Your task to perform on an android device: Open Google Chrome and open the bookmarks view Image 0: 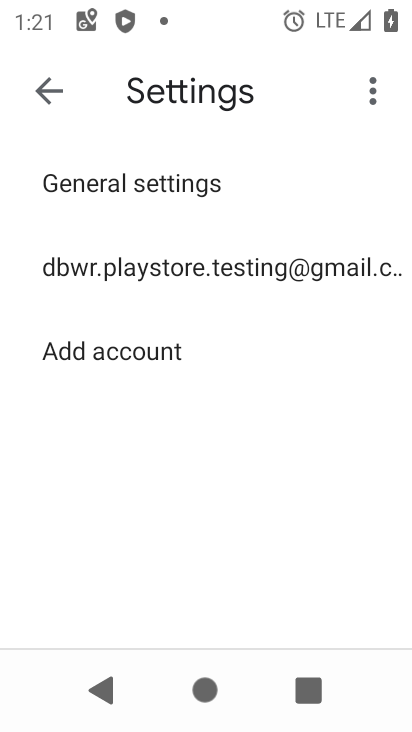
Step 0: press home button
Your task to perform on an android device: Open Google Chrome and open the bookmarks view Image 1: 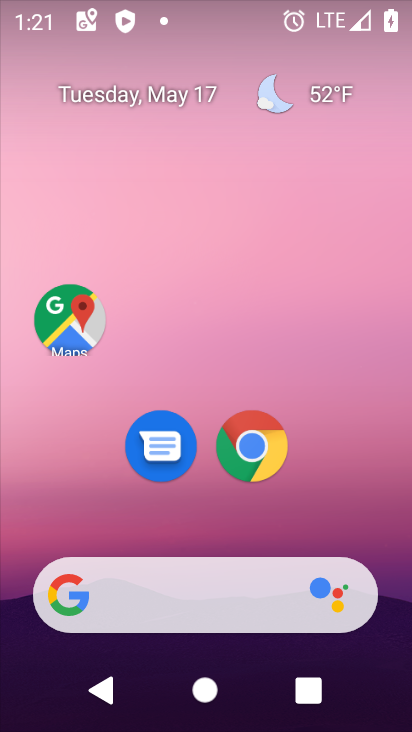
Step 1: click (258, 439)
Your task to perform on an android device: Open Google Chrome and open the bookmarks view Image 2: 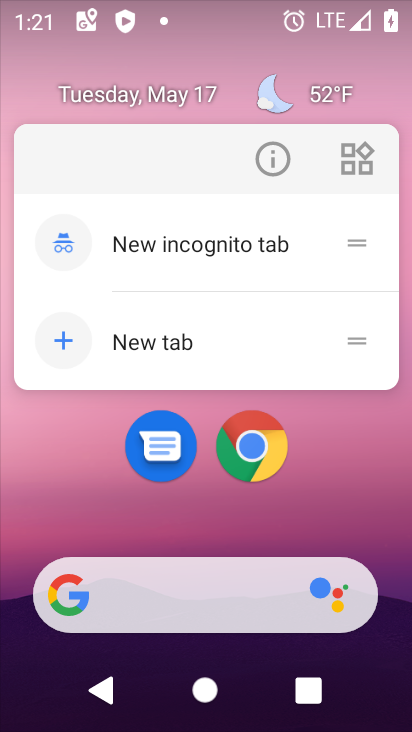
Step 2: click (254, 449)
Your task to perform on an android device: Open Google Chrome and open the bookmarks view Image 3: 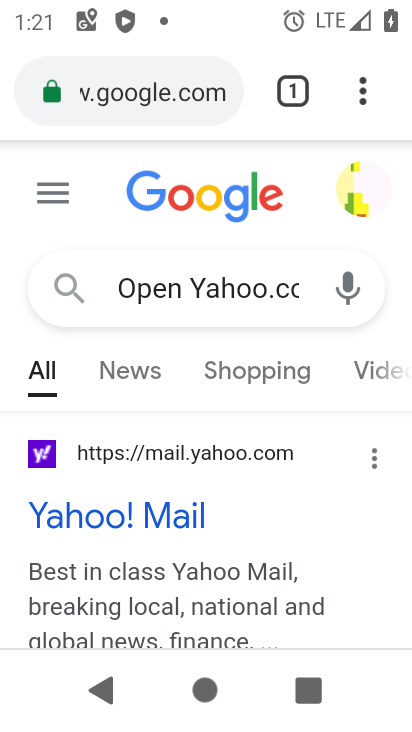
Step 3: click (362, 85)
Your task to perform on an android device: Open Google Chrome and open the bookmarks view Image 4: 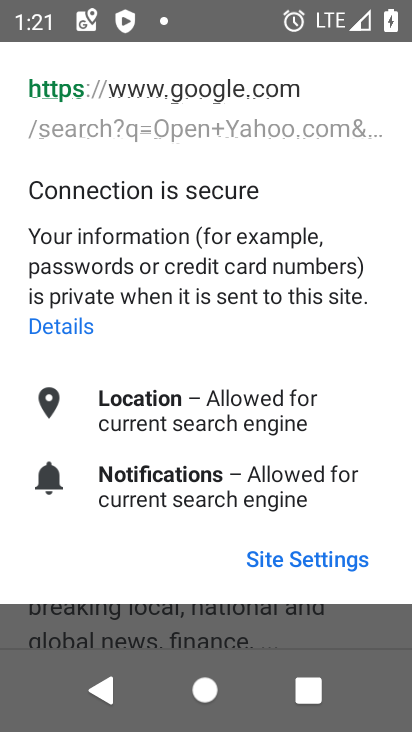
Step 4: click (63, 669)
Your task to perform on an android device: Open Google Chrome and open the bookmarks view Image 5: 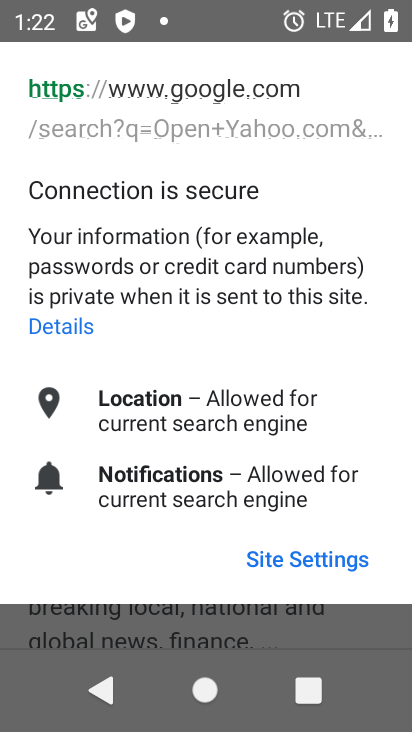
Step 5: click (326, 621)
Your task to perform on an android device: Open Google Chrome and open the bookmarks view Image 6: 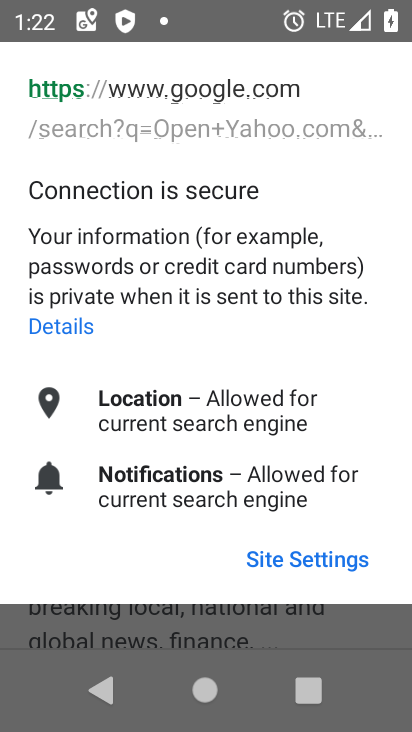
Step 6: press back button
Your task to perform on an android device: Open Google Chrome and open the bookmarks view Image 7: 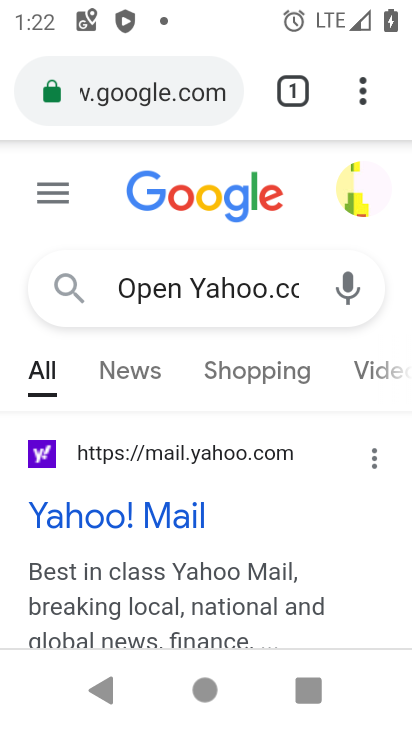
Step 7: click (358, 95)
Your task to perform on an android device: Open Google Chrome and open the bookmarks view Image 8: 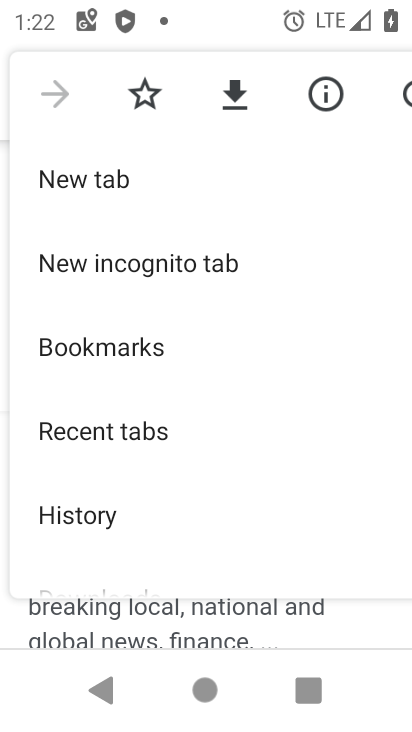
Step 8: click (165, 364)
Your task to perform on an android device: Open Google Chrome and open the bookmarks view Image 9: 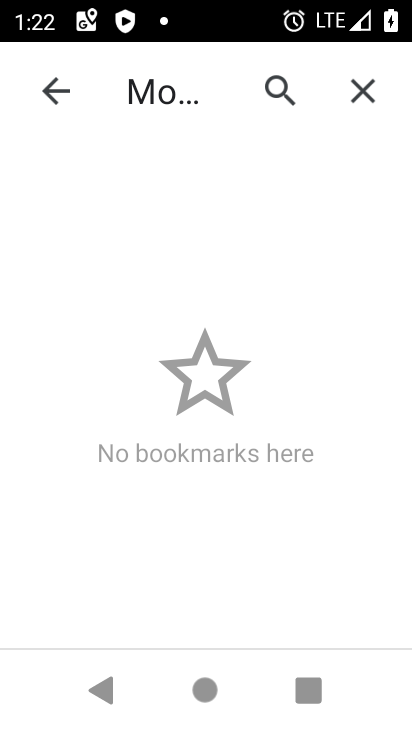
Step 9: task complete